Your task to perform on an android device: Open Chrome and go to the settings page Image 0: 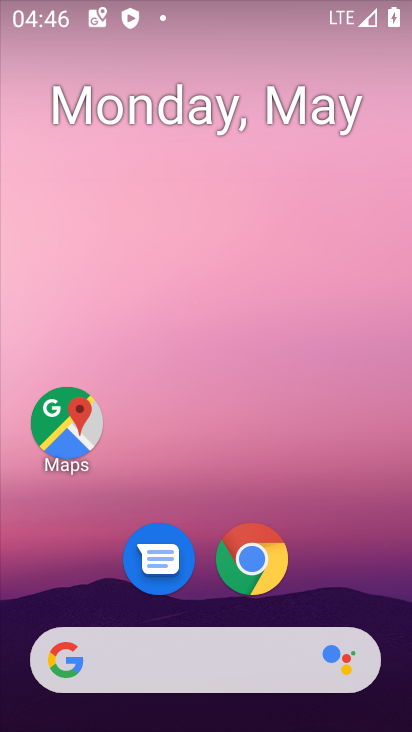
Step 0: drag from (288, 586) to (326, 27)
Your task to perform on an android device: Open Chrome and go to the settings page Image 1: 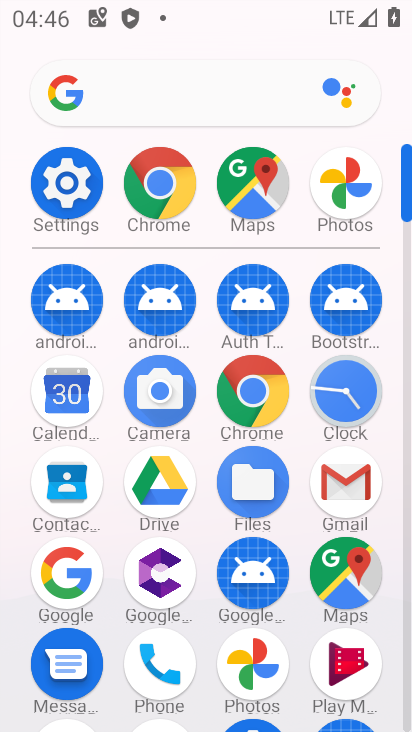
Step 1: click (256, 409)
Your task to perform on an android device: Open Chrome and go to the settings page Image 2: 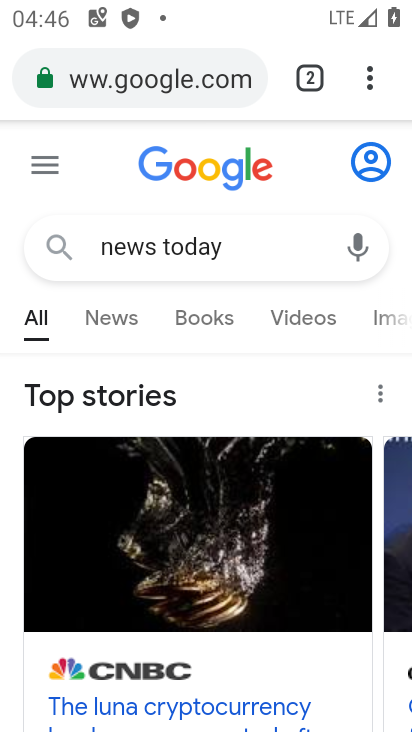
Step 2: click (374, 82)
Your task to perform on an android device: Open Chrome and go to the settings page Image 3: 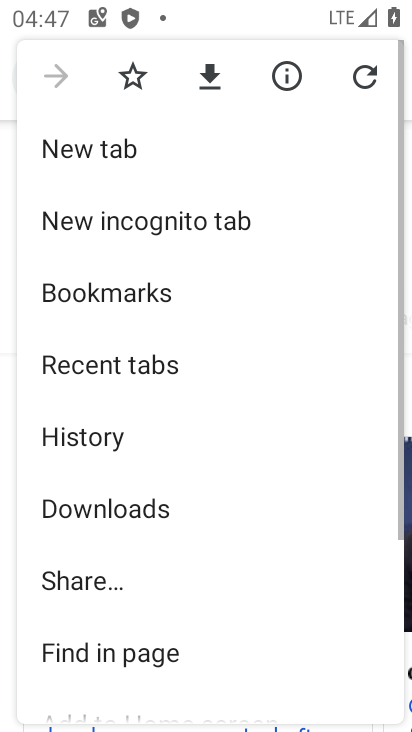
Step 3: drag from (179, 654) to (176, 129)
Your task to perform on an android device: Open Chrome and go to the settings page Image 4: 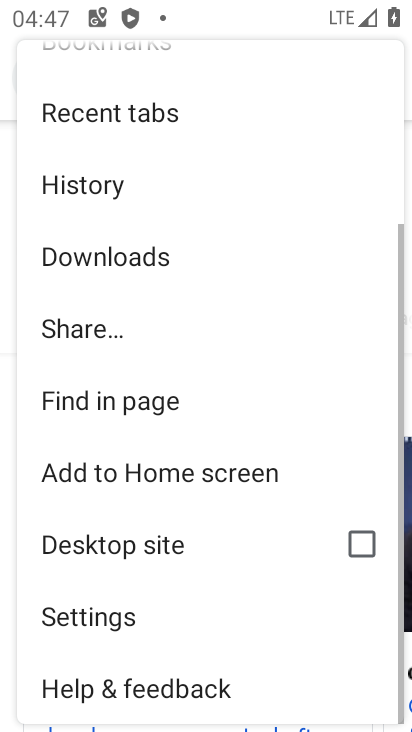
Step 4: click (141, 633)
Your task to perform on an android device: Open Chrome and go to the settings page Image 5: 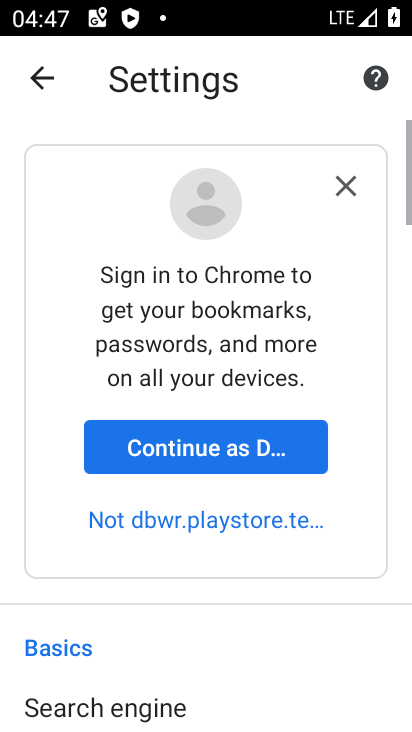
Step 5: task complete